Your task to perform on an android device: show emergency info Image 0: 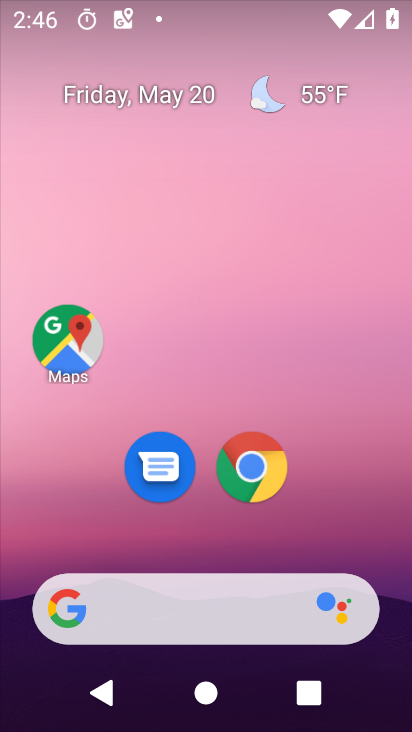
Step 0: drag from (211, 535) to (206, 33)
Your task to perform on an android device: show emergency info Image 1: 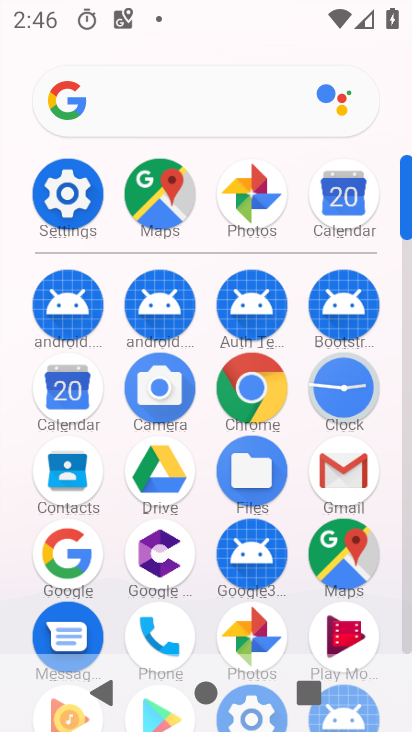
Step 1: click (52, 193)
Your task to perform on an android device: show emergency info Image 2: 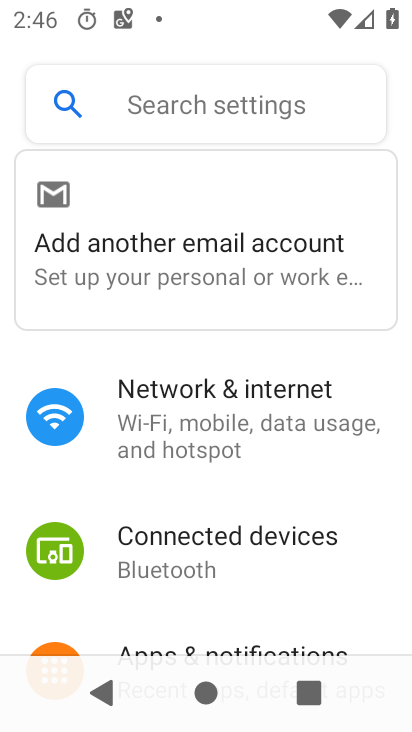
Step 2: drag from (217, 581) to (210, 184)
Your task to perform on an android device: show emergency info Image 3: 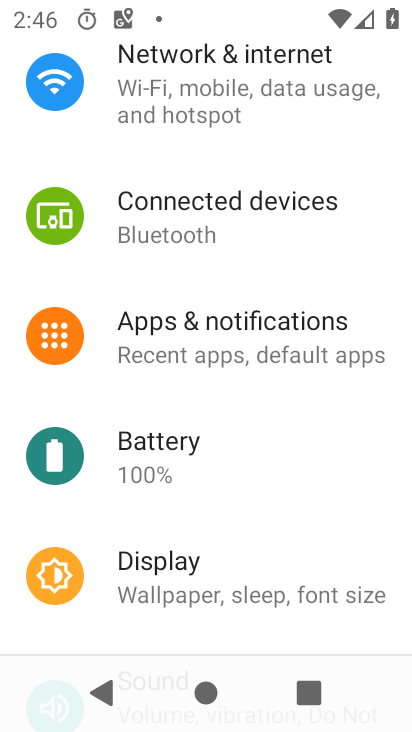
Step 3: drag from (249, 524) to (257, 275)
Your task to perform on an android device: show emergency info Image 4: 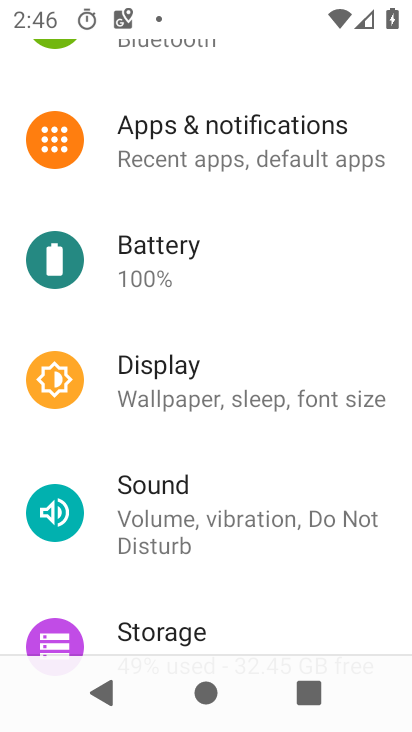
Step 4: drag from (226, 613) to (226, 270)
Your task to perform on an android device: show emergency info Image 5: 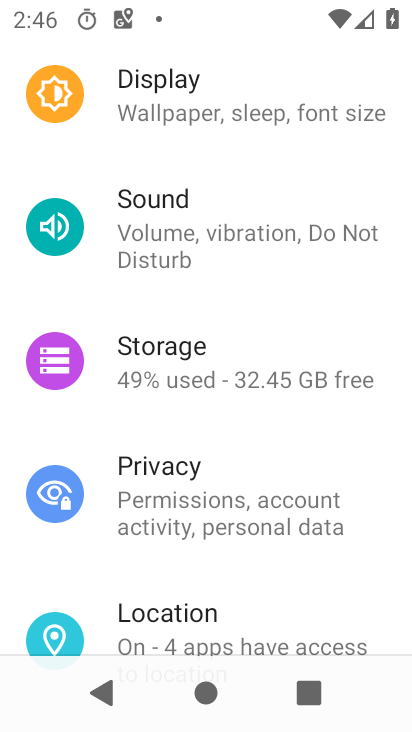
Step 5: drag from (241, 563) to (251, 208)
Your task to perform on an android device: show emergency info Image 6: 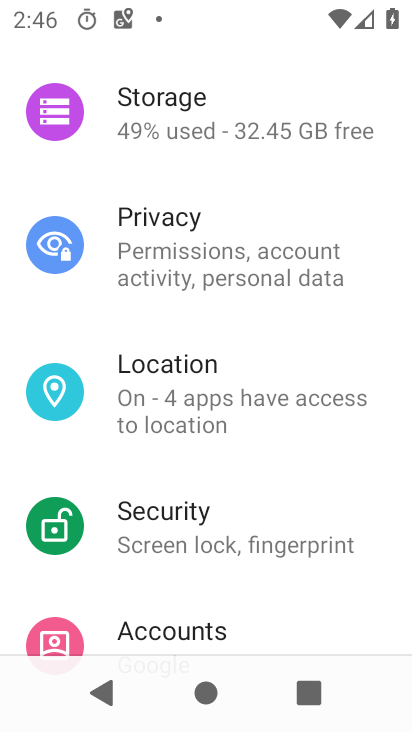
Step 6: drag from (238, 557) to (236, 218)
Your task to perform on an android device: show emergency info Image 7: 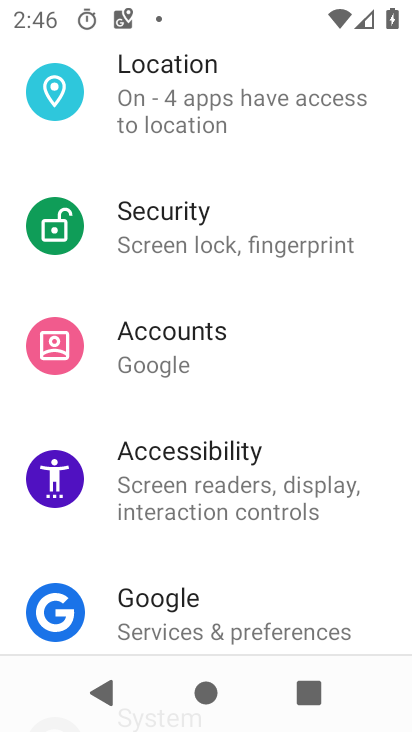
Step 7: drag from (249, 531) to (236, 243)
Your task to perform on an android device: show emergency info Image 8: 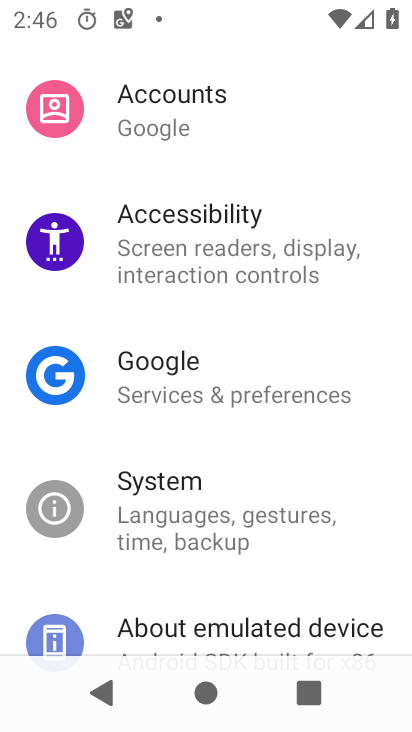
Step 8: drag from (202, 589) to (185, 339)
Your task to perform on an android device: show emergency info Image 9: 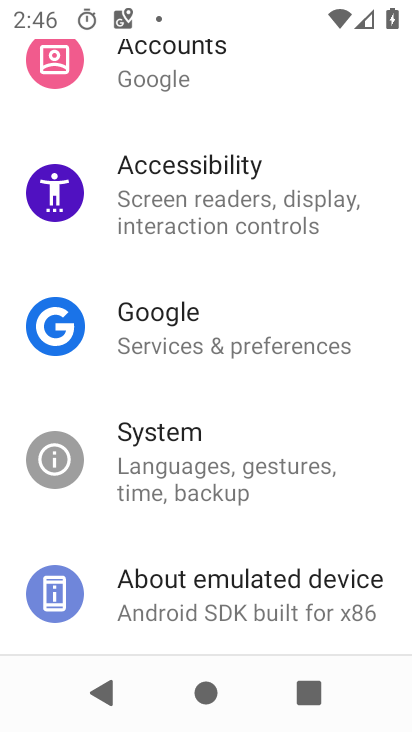
Step 9: click (191, 577)
Your task to perform on an android device: show emergency info Image 10: 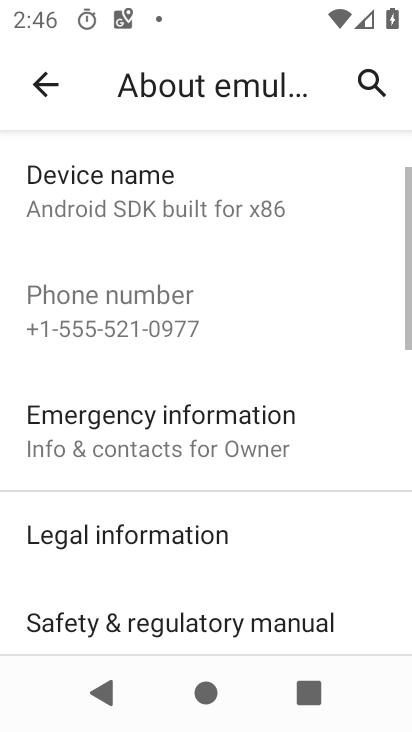
Step 10: click (141, 422)
Your task to perform on an android device: show emergency info Image 11: 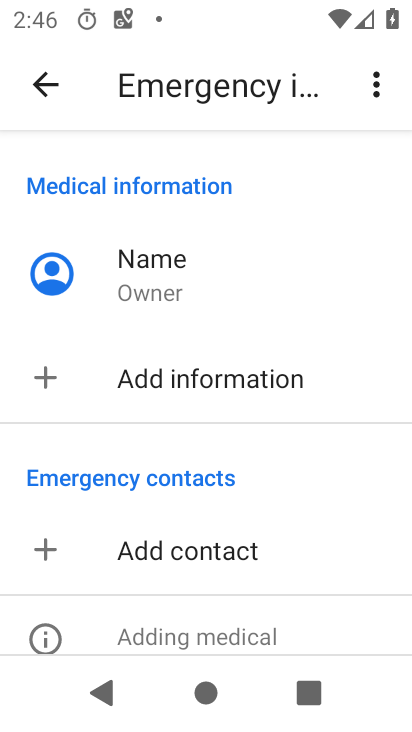
Step 11: task complete